Your task to perform on an android device: turn on data saver in the chrome app Image 0: 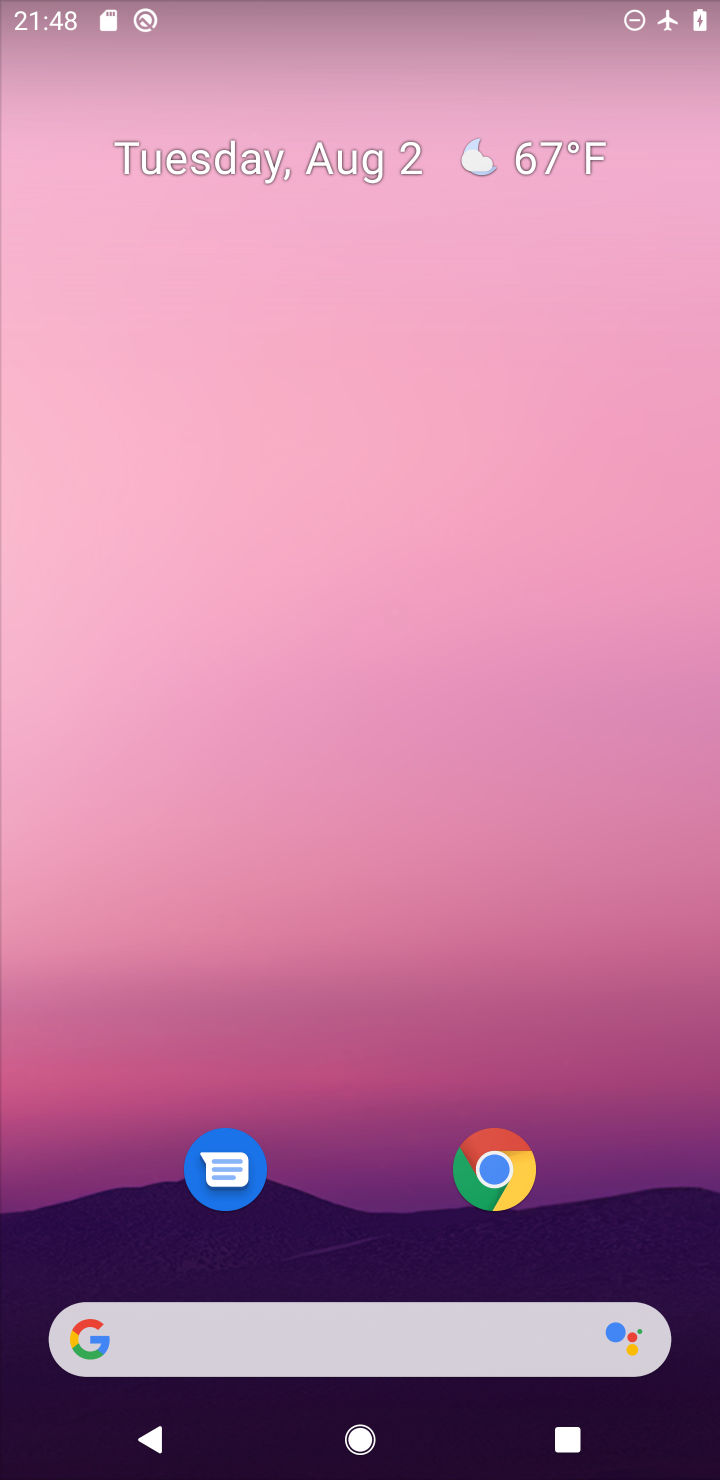
Step 0: drag from (330, 1159) to (280, 50)
Your task to perform on an android device: turn on data saver in the chrome app Image 1: 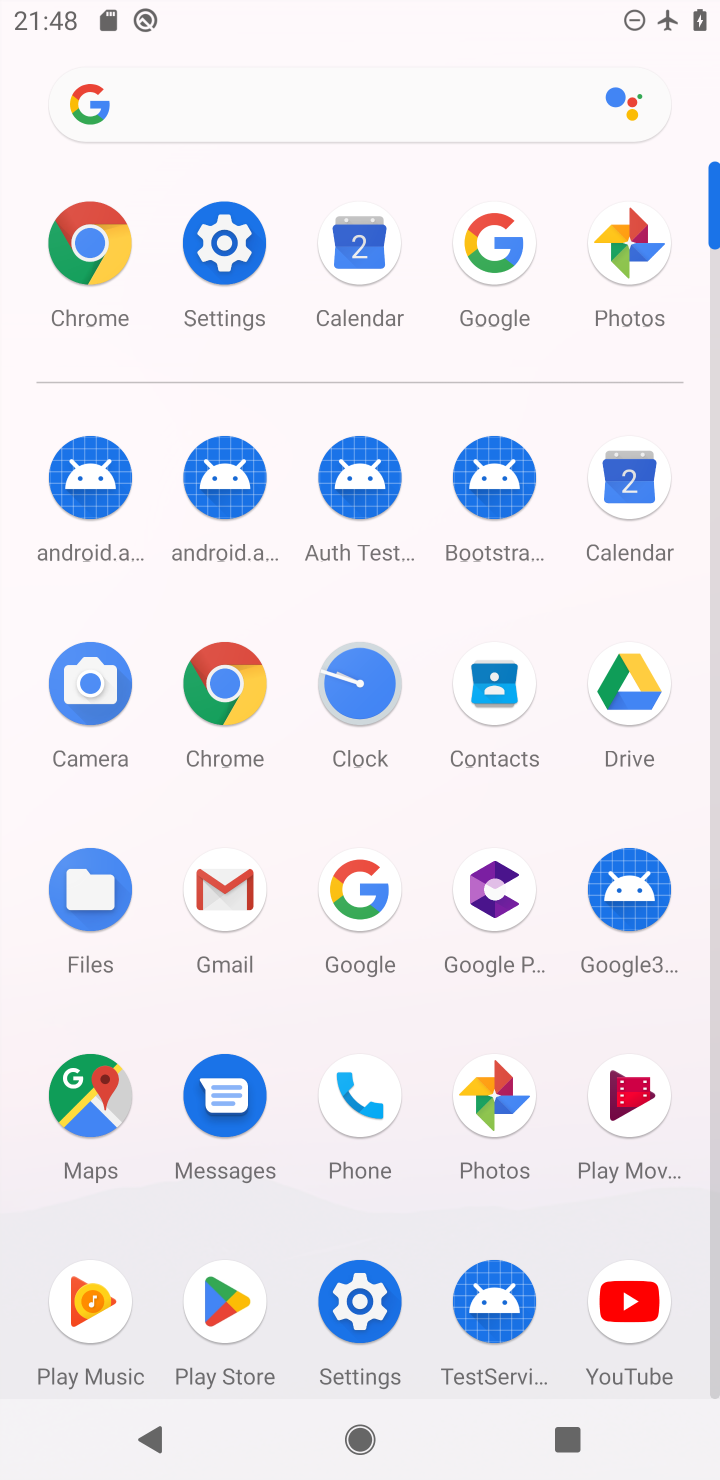
Step 1: click (93, 239)
Your task to perform on an android device: turn on data saver in the chrome app Image 2: 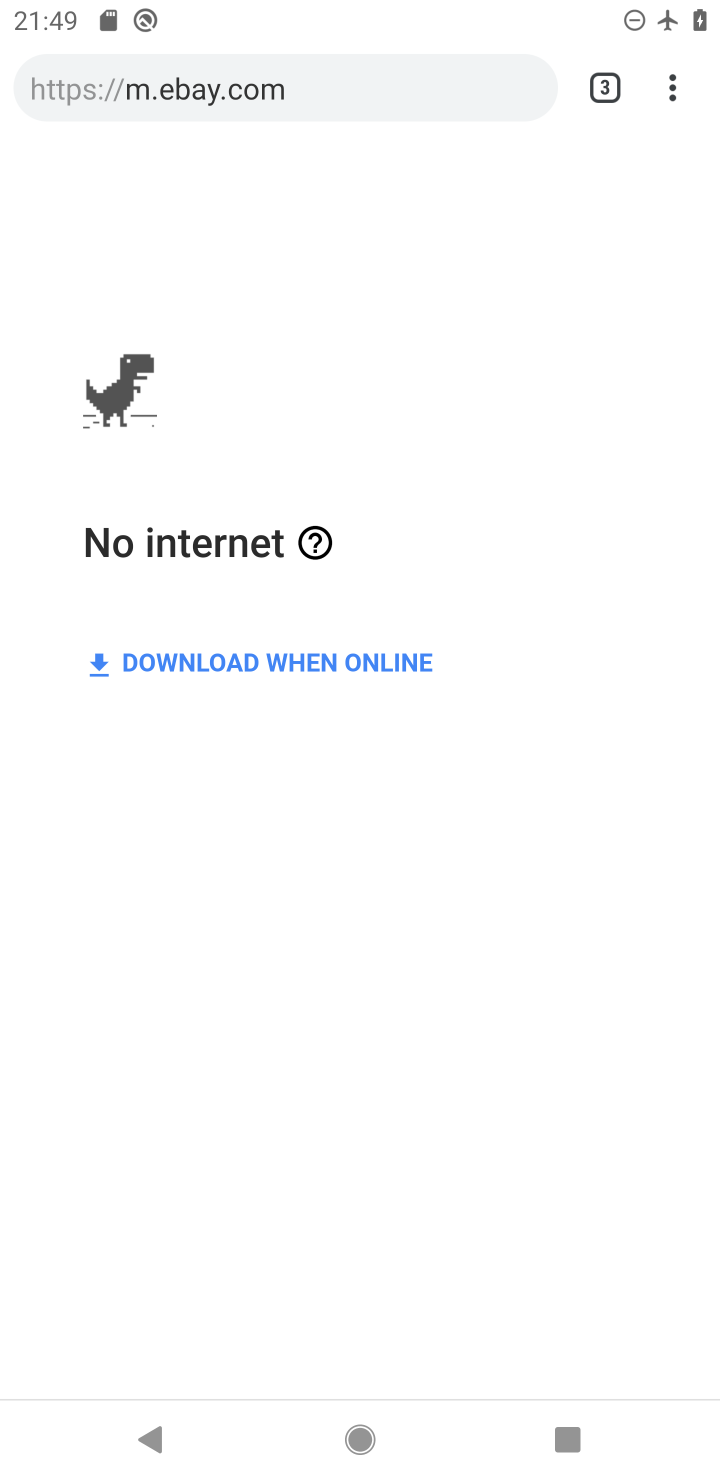
Step 2: click (670, 99)
Your task to perform on an android device: turn on data saver in the chrome app Image 3: 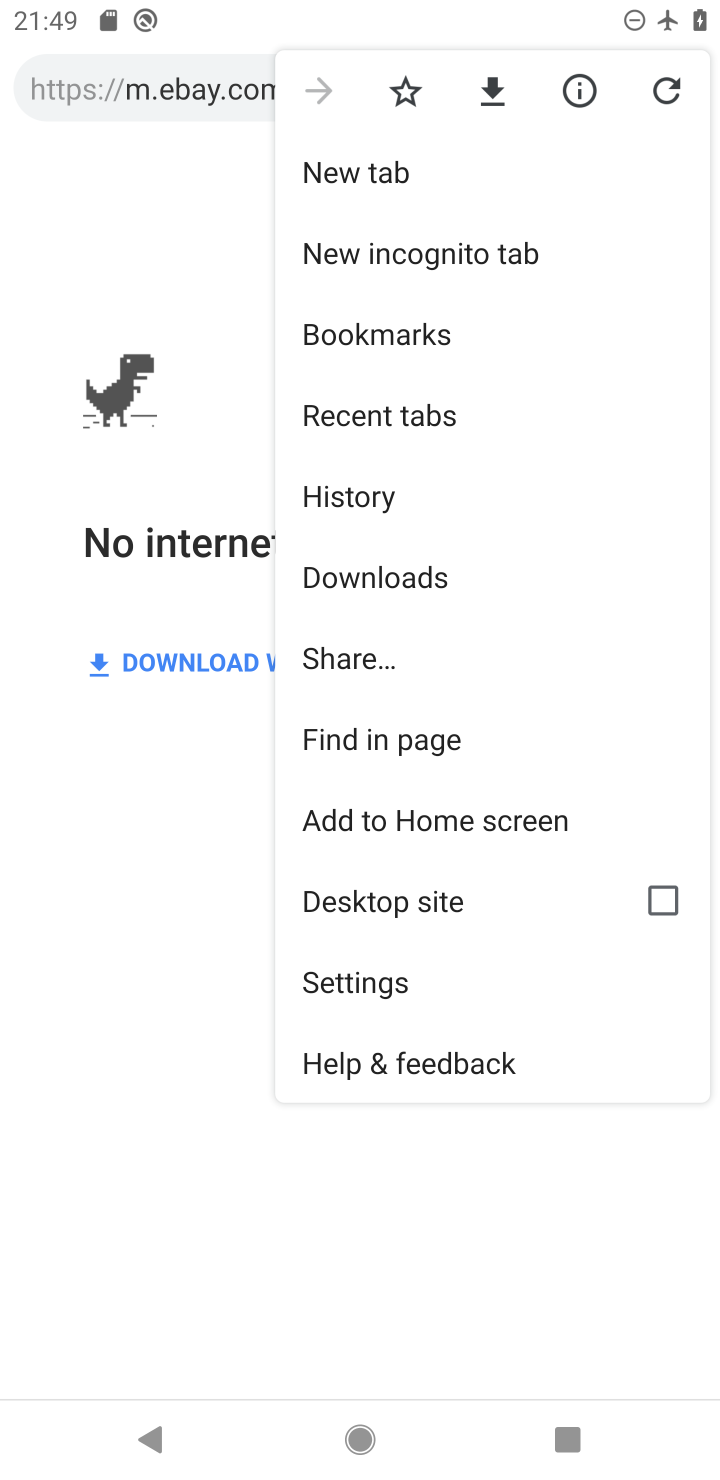
Step 3: click (362, 979)
Your task to perform on an android device: turn on data saver in the chrome app Image 4: 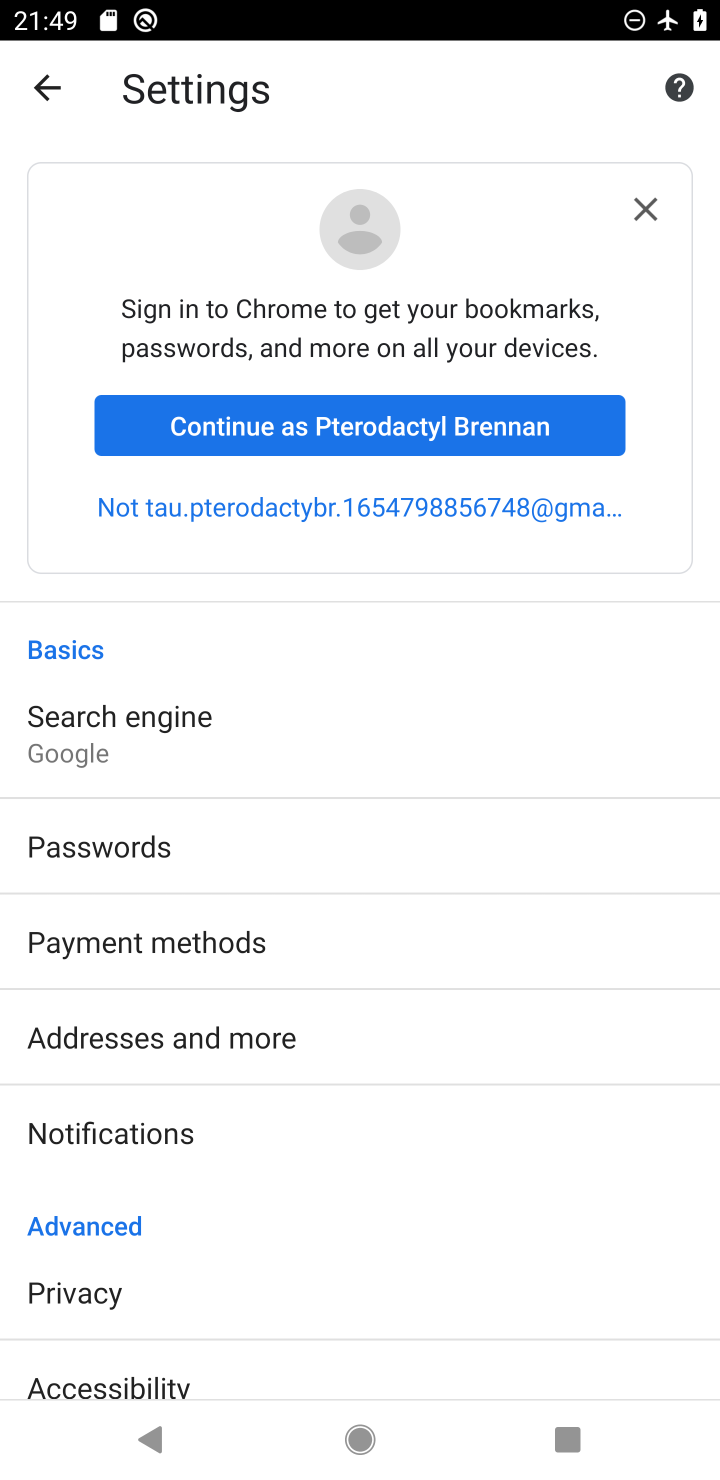
Step 4: drag from (160, 1330) to (203, 653)
Your task to perform on an android device: turn on data saver in the chrome app Image 5: 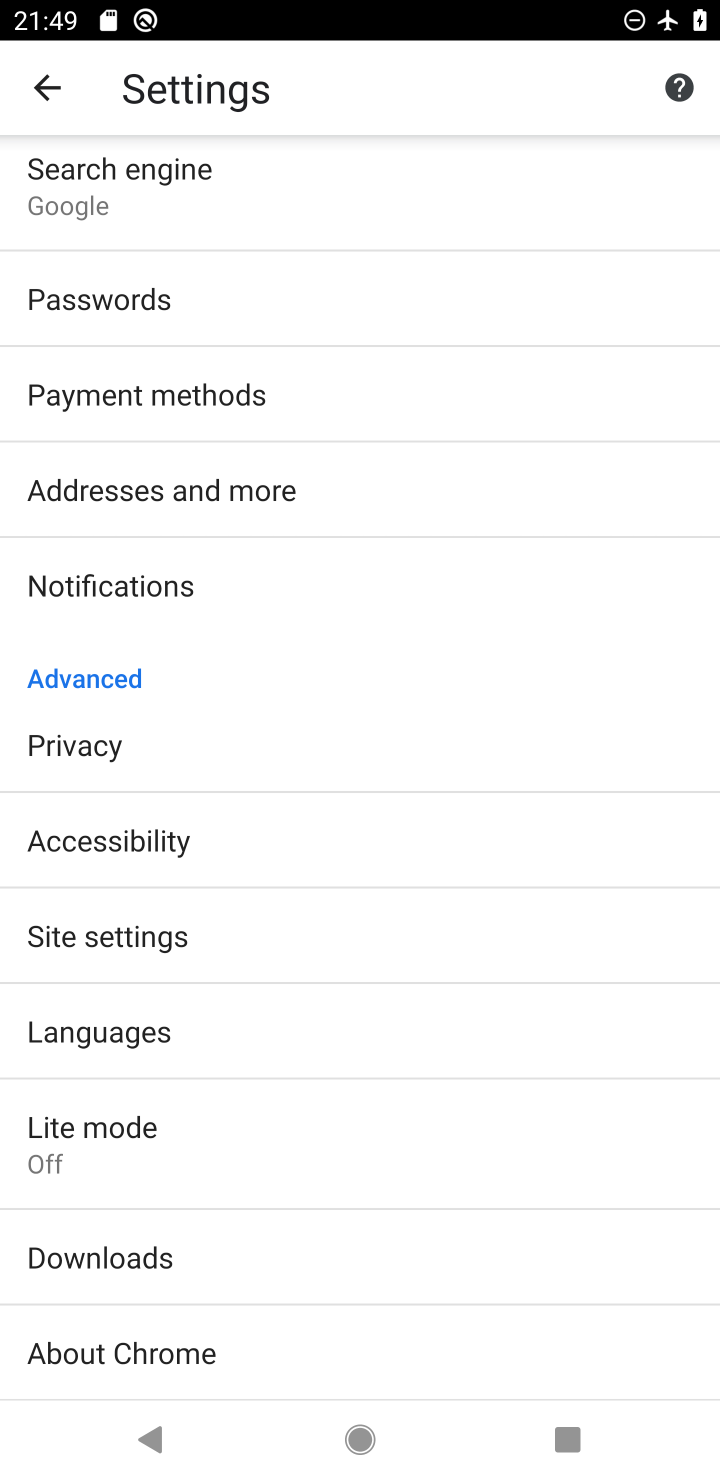
Step 5: click (97, 1130)
Your task to perform on an android device: turn on data saver in the chrome app Image 6: 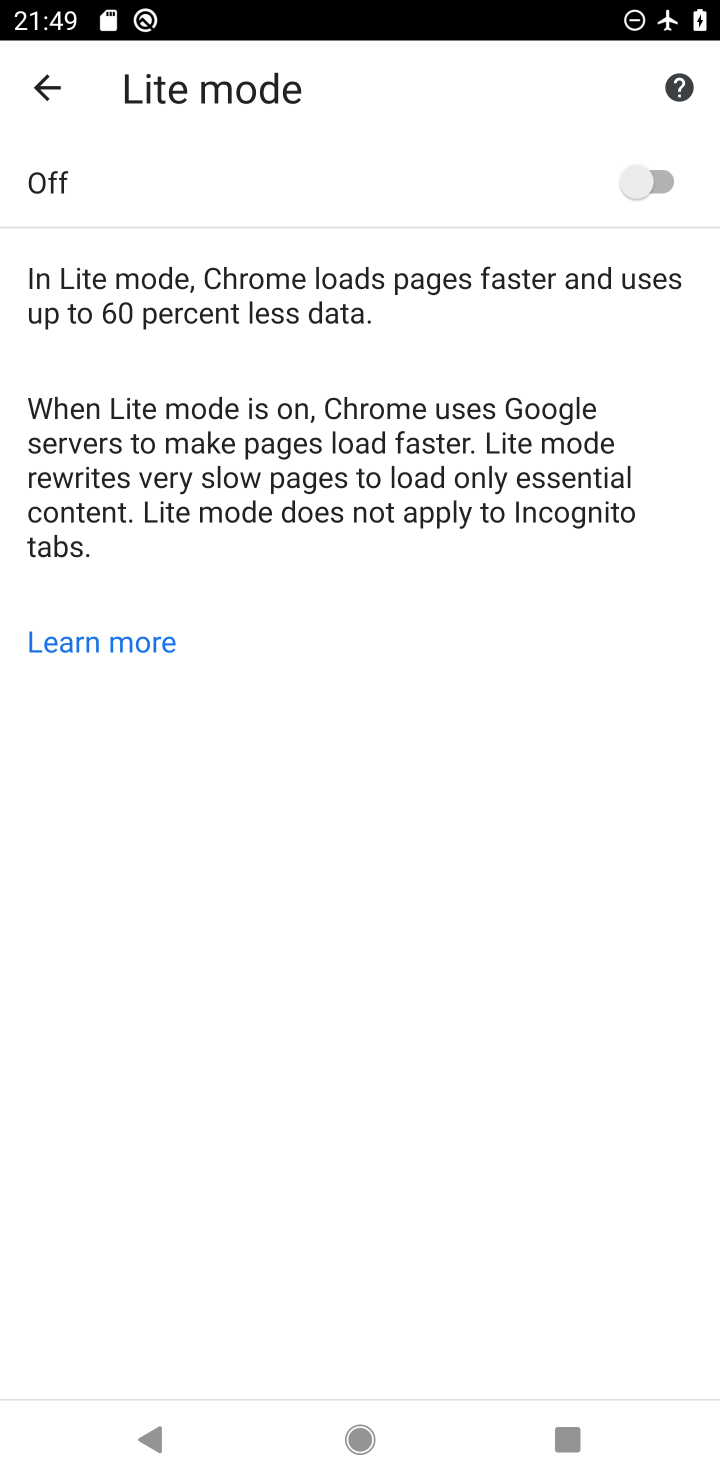
Step 6: click (660, 187)
Your task to perform on an android device: turn on data saver in the chrome app Image 7: 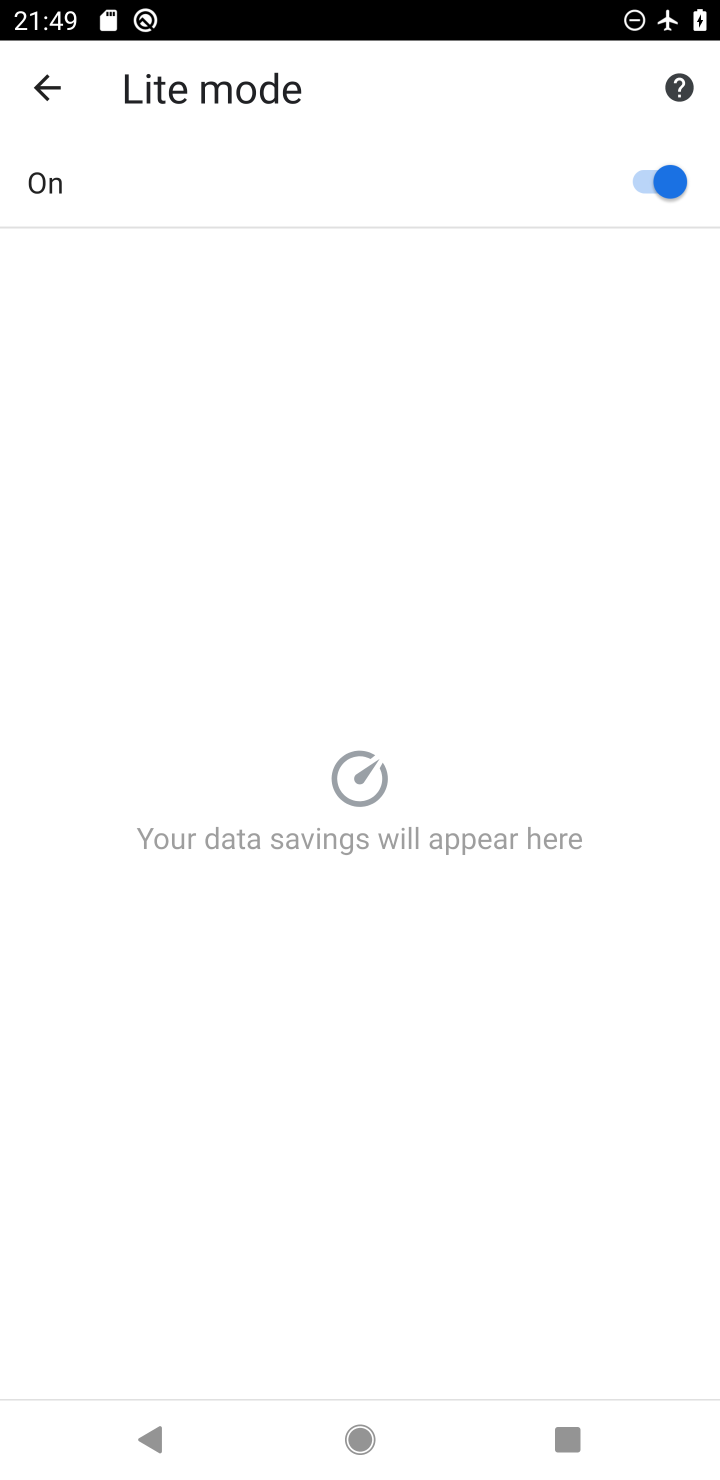
Step 7: task complete